Your task to perform on an android device: Open sound settings Image 0: 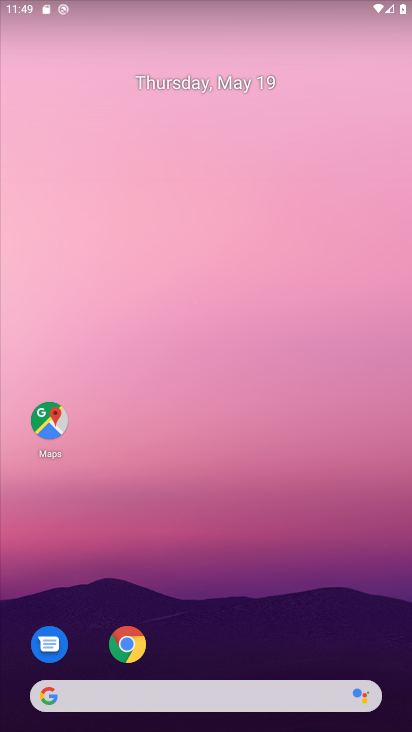
Step 0: drag from (233, 521) to (308, 16)
Your task to perform on an android device: Open sound settings Image 1: 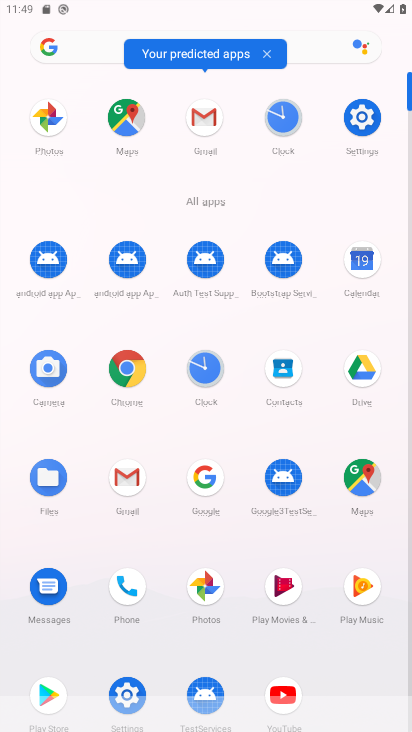
Step 1: click (369, 126)
Your task to perform on an android device: Open sound settings Image 2: 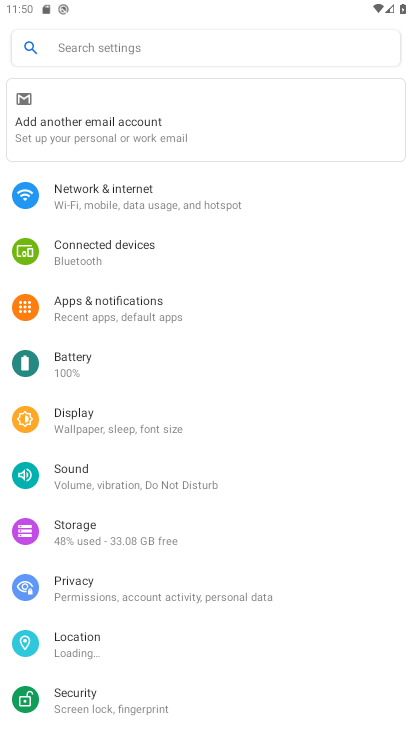
Step 2: click (93, 482)
Your task to perform on an android device: Open sound settings Image 3: 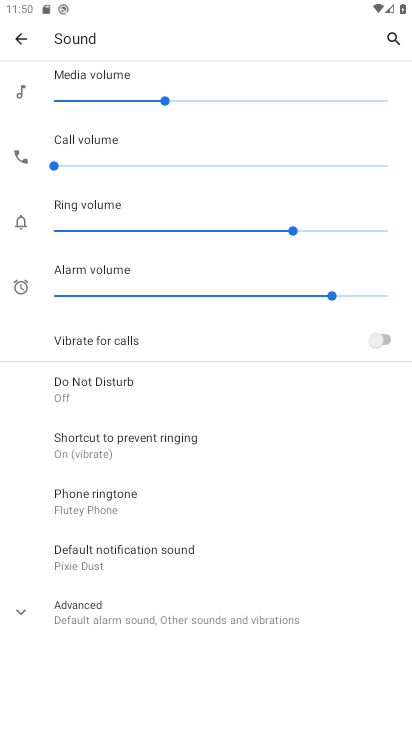
Step 3: task complete